Your task to perform on an android device: Clear all items from cart on amazon. Add razer blade to the cart on amazon, then select checkout. Image 0: 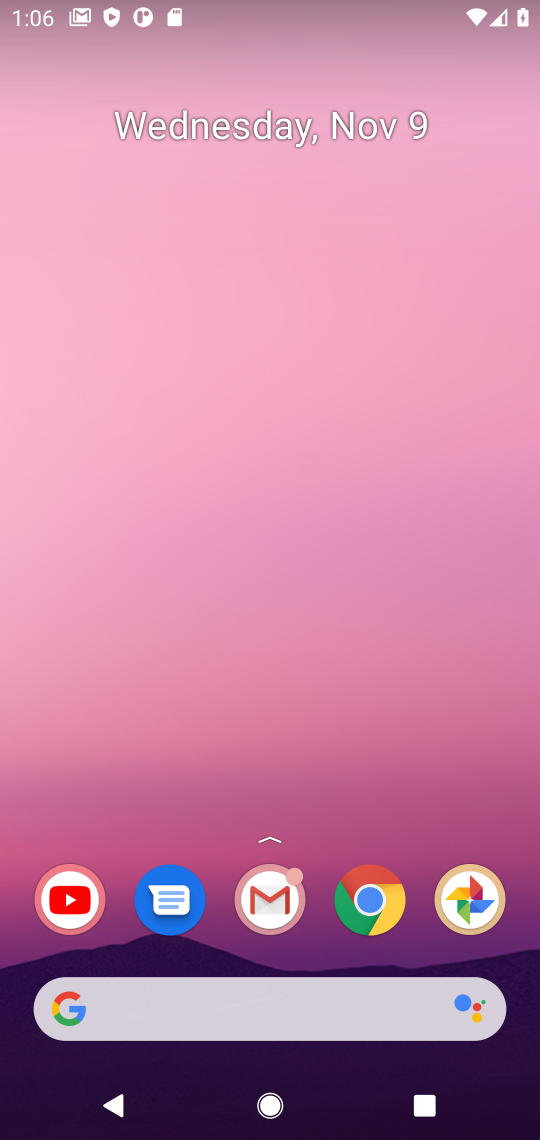
Step 0: click (370, 905)
Your task to perform on an android device: Clear all items from cart on amazon. Add razer blade to the cart on amazon, then select checkout. Image 1: 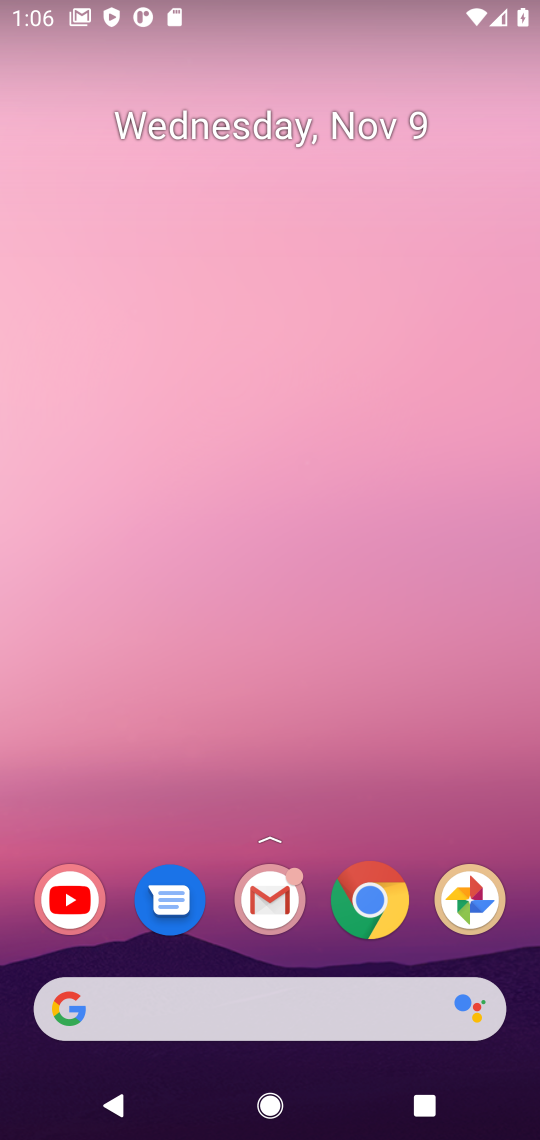
Step 1: click (370, 905)
Your task to perform on an android device: Clear all items from cart on amazon. Add razer blade to the cart on amazon, then select checkout. Image 2: 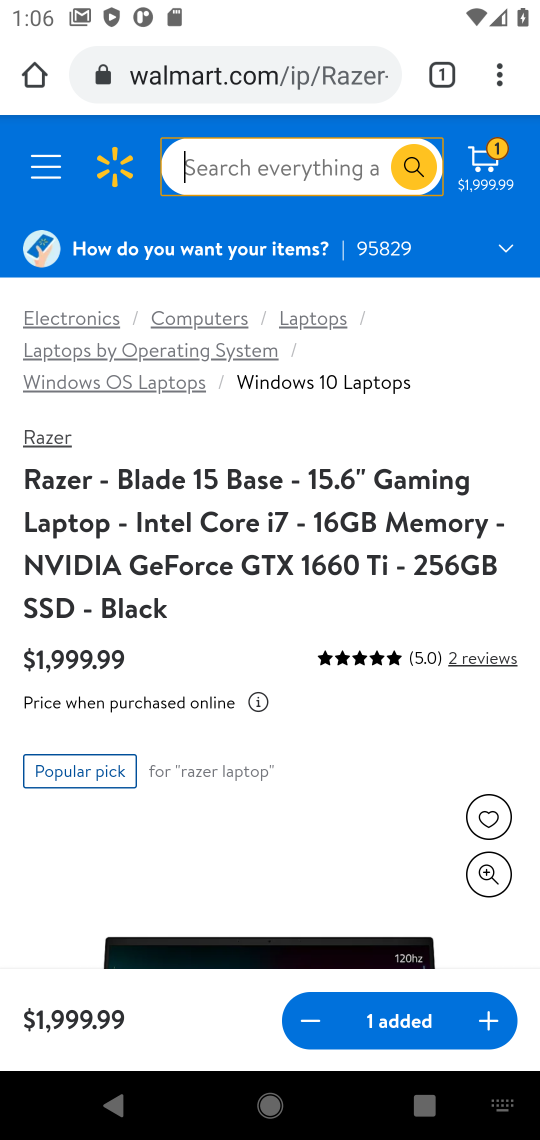
Step 2: click (448, 76)
Your task to perform on an android device: Clear all items from cart on amazon. Add razer blade to the cart on amazon, then select checkout. Image 3: 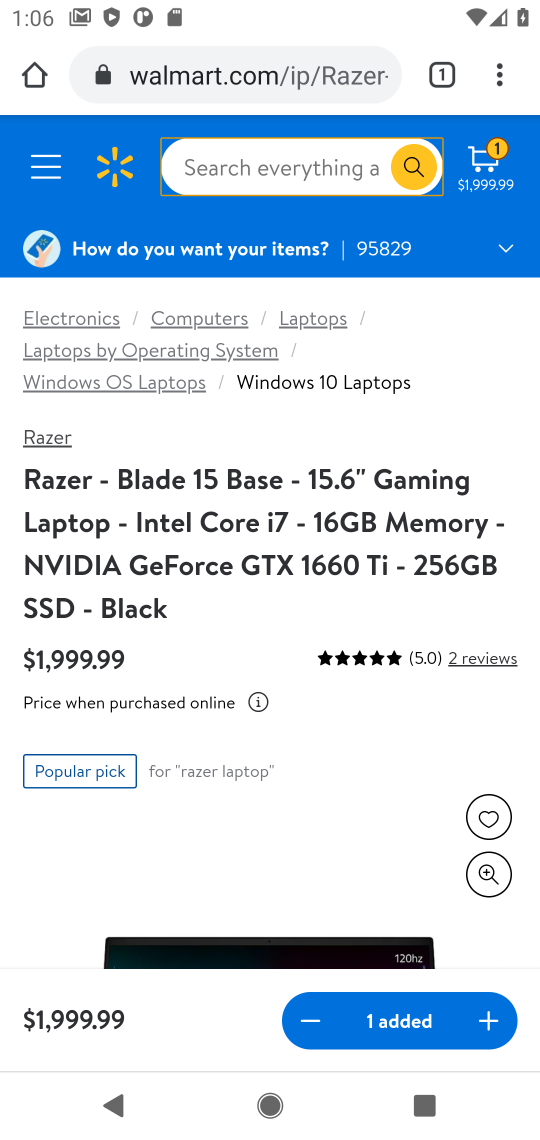
Step 3: click (438, 75)
Your task to perform on an android device: Clear all items from cart on amazon. Add razer blade to the cart on amazon, then select checkout. Image 4: 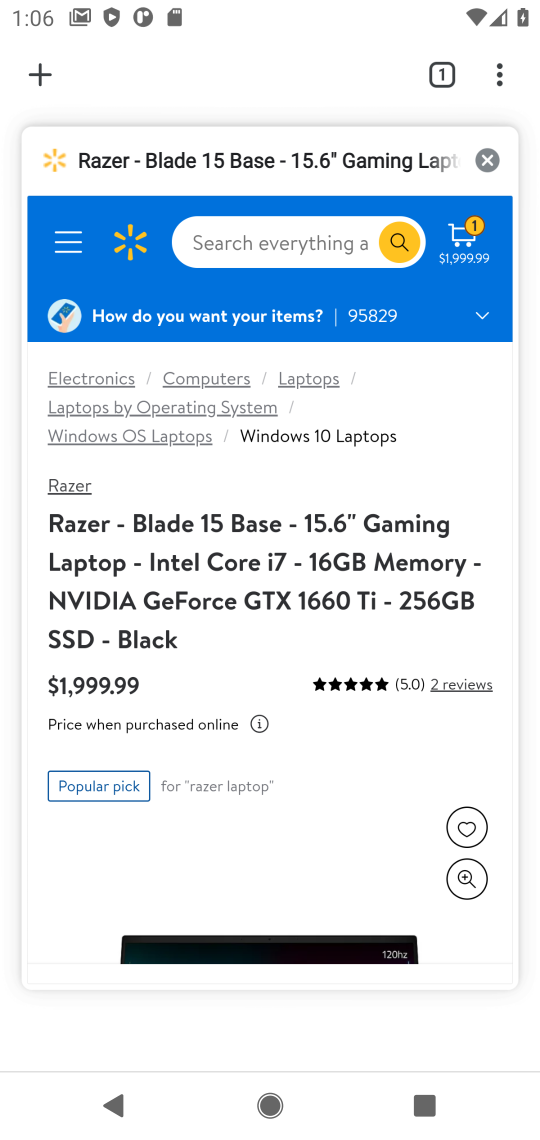
Step 4: click (38, 77)
Your task to perform on an android device: Clear all items from cart on amazon. Add razer blade to the cart on amazon, then select checkout. Image 5: 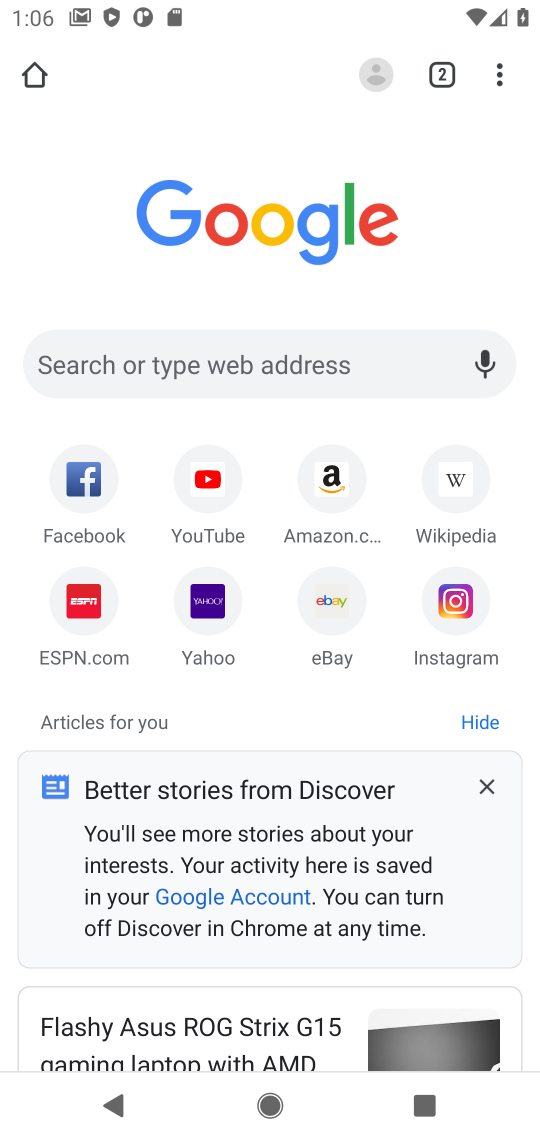
Step 5: click (331, 477)
Your task to perform on an android device: Clear all items from cart on amazon. Add razer blade to the cart on amazon, then select checkout. Image 6: 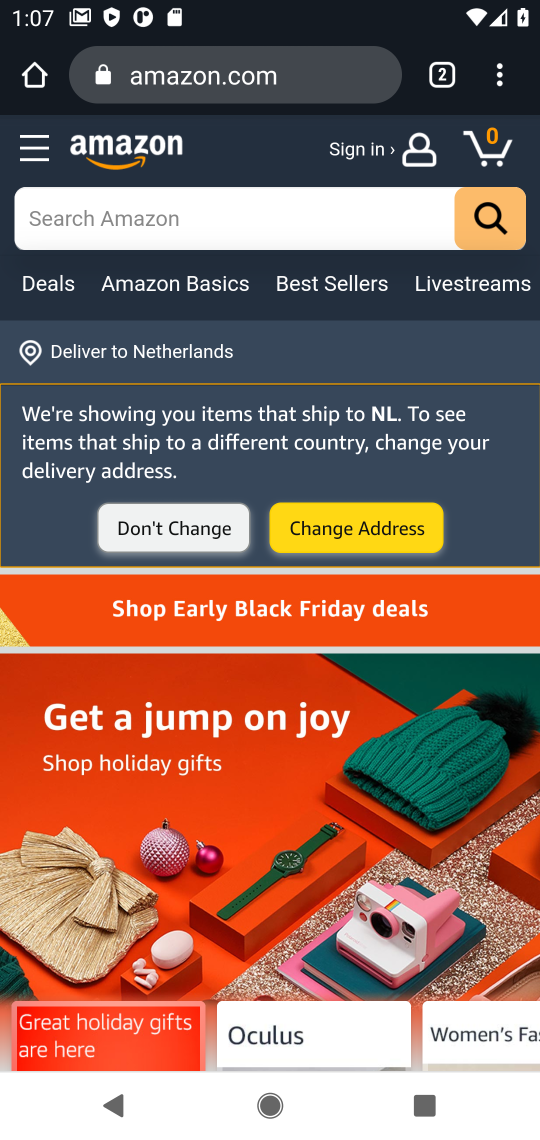
Step 6: click (147, 227)
Your task to perform on an android device: Clear all items from cart on amazon. Add razer blade to the cart on amazon, then select checkout. Image 7: 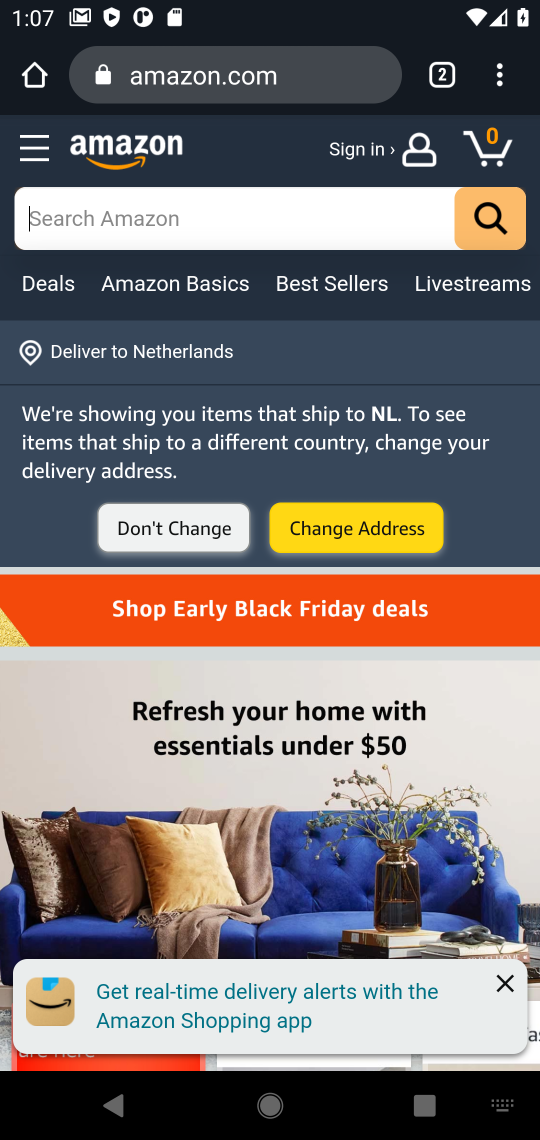
Step 7: type "razer blade "
Your task to perform on an android device: Clear all items from cart on amazon. Add razer blade to the cart on amazon, then select checkout. Image 8: 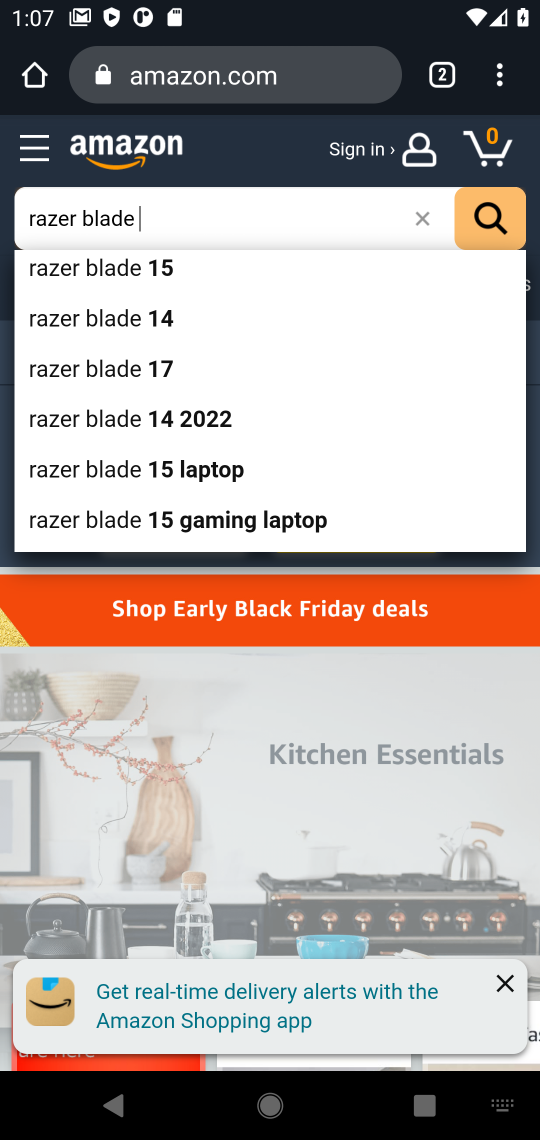
Step 8: click (109, 262)
Your task to perform on an android device: Clear all items from cart on amazon. Add razer blade to the cart on amazon, then select checkout. Image 9: 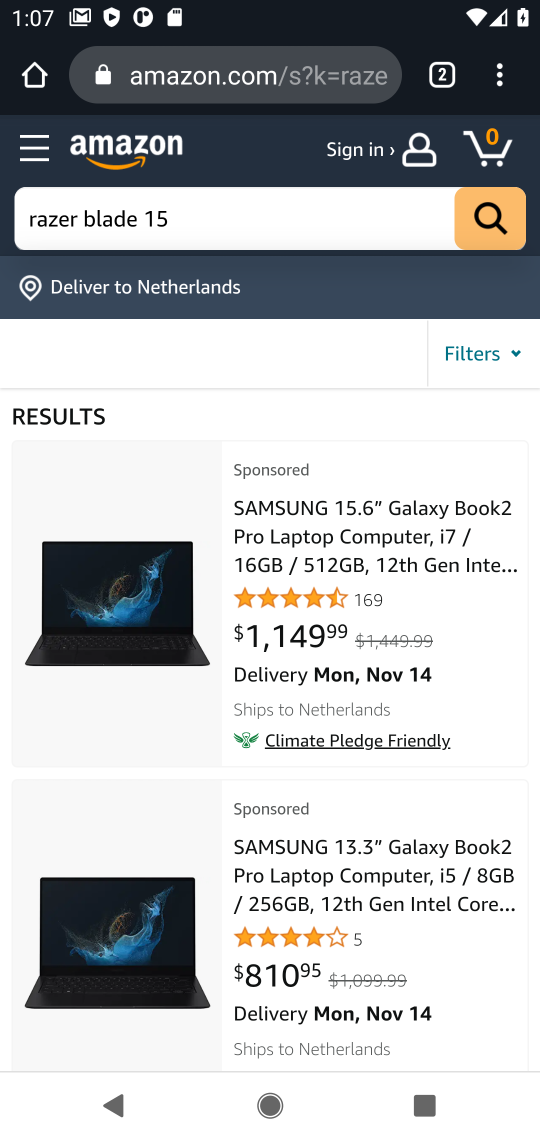
Step 9: drag from (328, 1028) to (173, 420)
Your task to perform on an android device: Clear all items from cart on amazon. Add razer blade to the cart on amazon, then select checkout. Image 10: 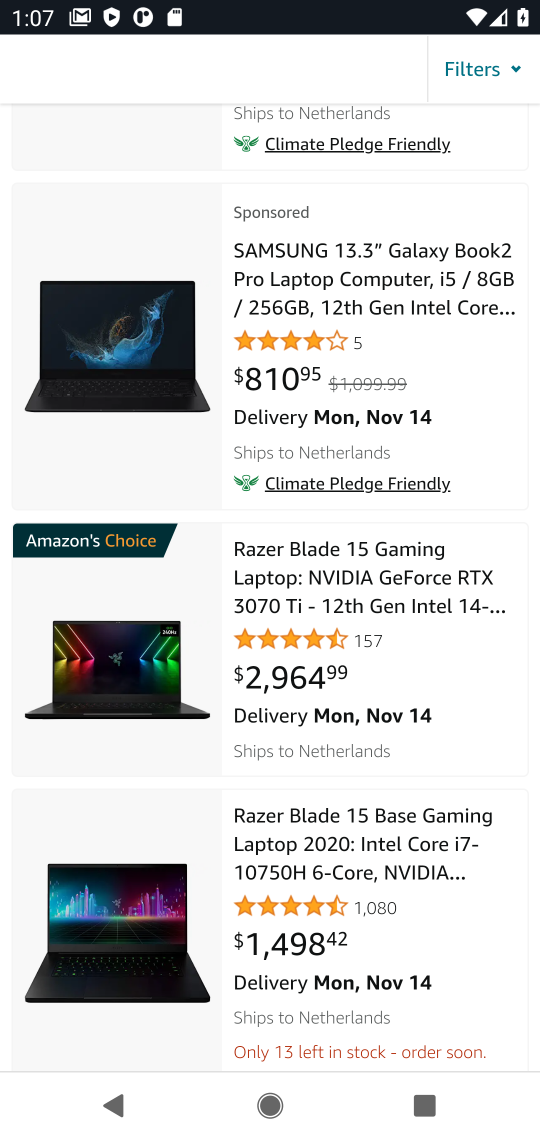
Step 10: click (256, 840)
Your task to perform on an android device: Clear all items from cart on amazon. Add razer blade to the cart on amazon, then select checkout. Image 11: 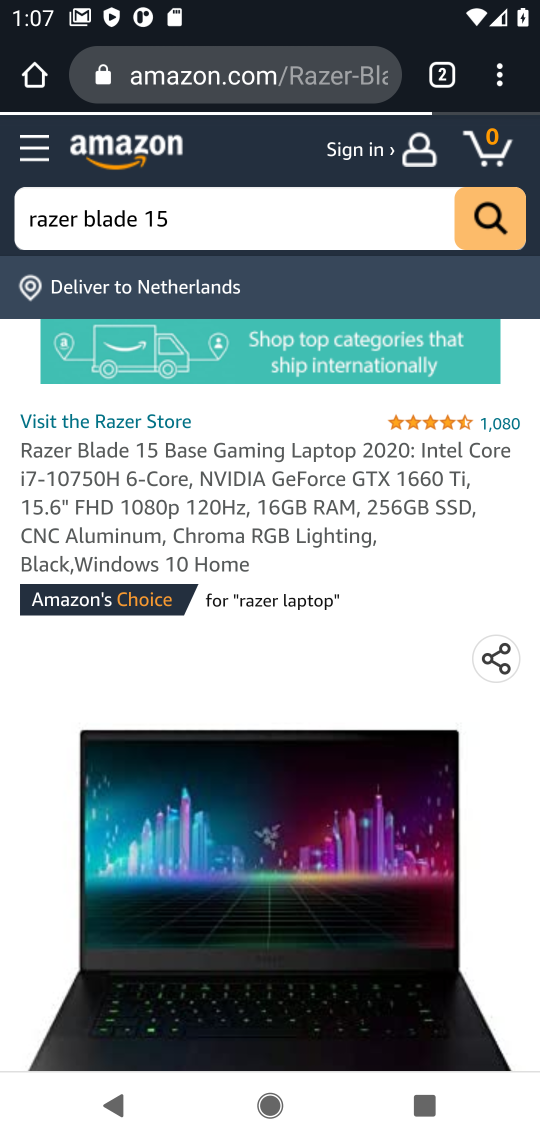
Step 11: drag from (247, 845) to (284, 68)
Your task to perform on an android device: Clear all items from cart on amazon. Add razer blade to the cart on amazon, then select checkout. Image 12: 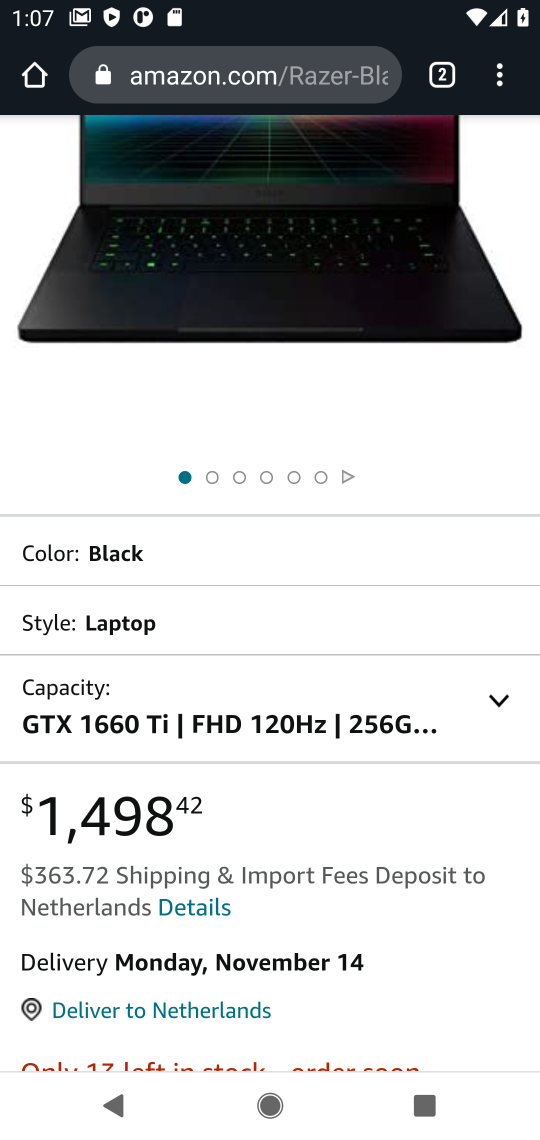
Step 12: drag from (289, 791) to (210, 92)
Your task to perform on an android device: Clear all items from cart on amazon. Add razer blade to the cart on amazon, then select checkout. Image 13: 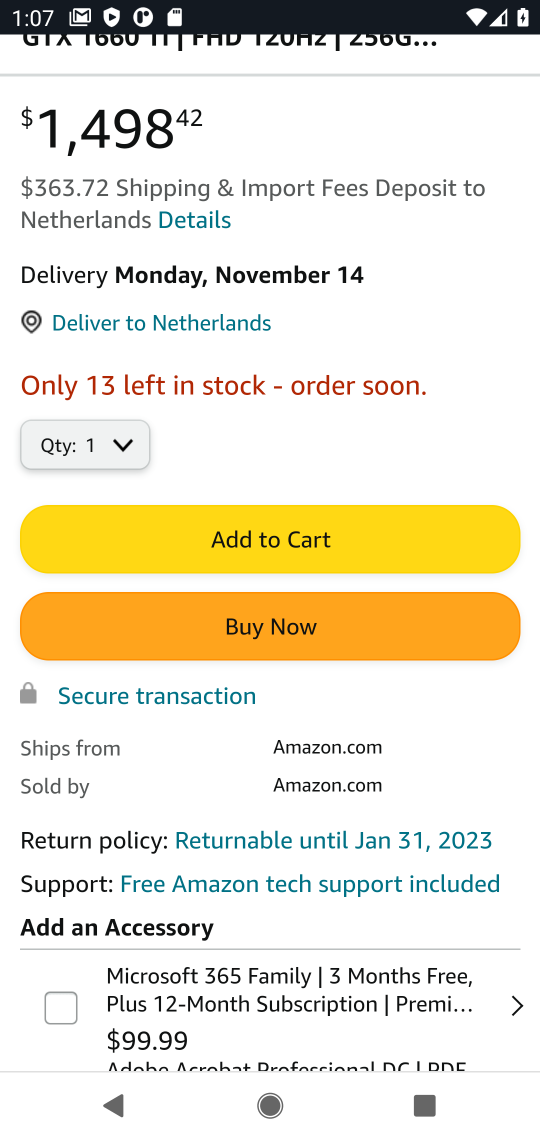
Step 13: click (255, 533)
Your task to perform on an android device: Clear all items from cart on amazon. Add razer blade to the cart on amazon, then select checkout. Image 14: 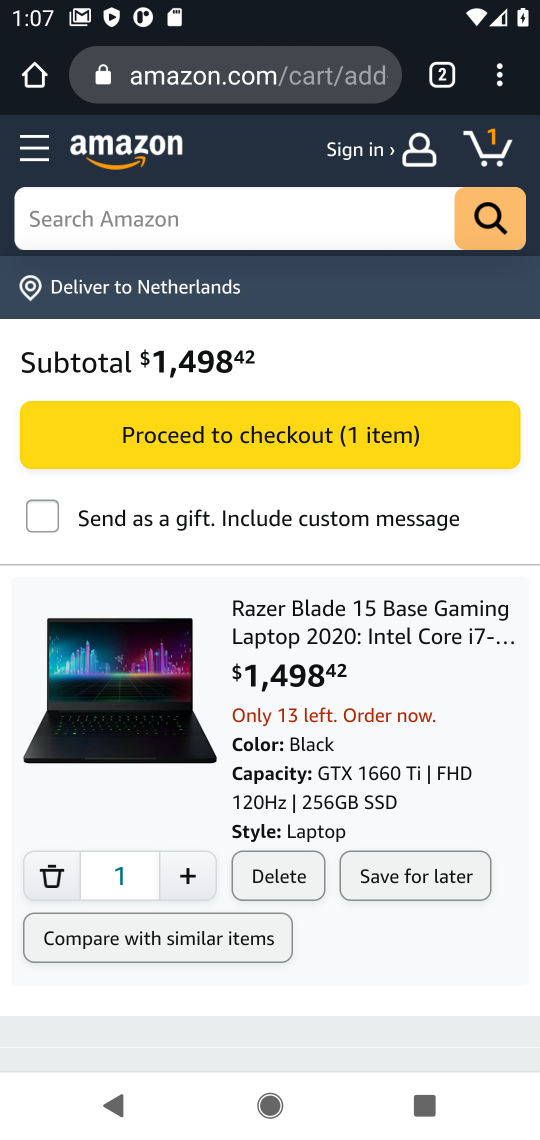
Step 14: task complete